Your task to perform on an android device: Open calendar and show me the fourth week of next month Image 0: 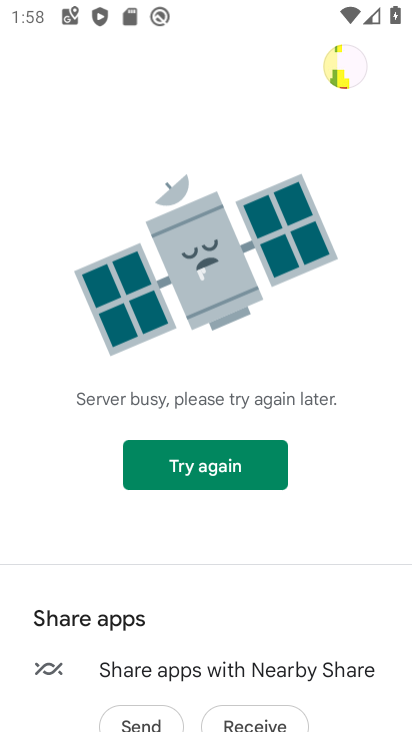
Step 0: press home button
Your task to perform on an android device: Open calendar and show me the fourth week of next month Image 1: 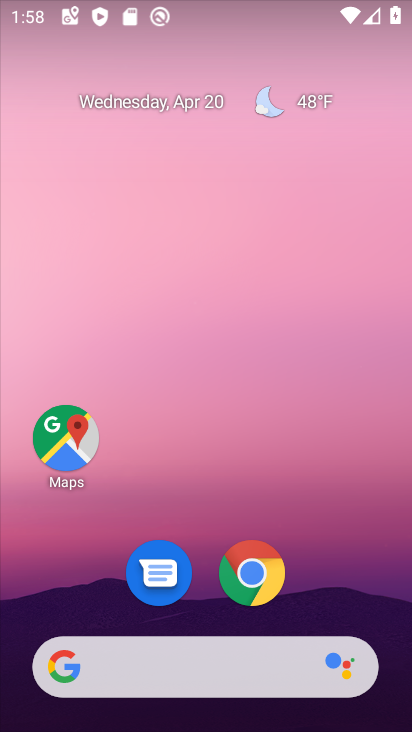
Step 1: drag from (236, 597) to (347, 66)
Your task to perform on an android device: Open calendar and show me the fourth week of next month Image 2: 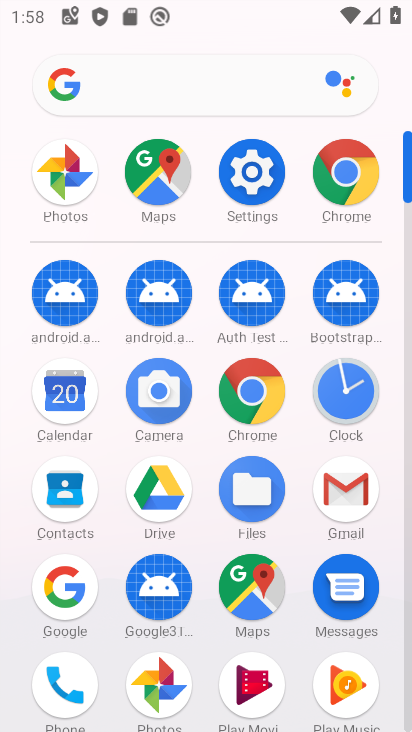
Step 2: click (80, 391)
Your task to perform on an android device: Open calendar and show me the fourth week of next month Image 3: 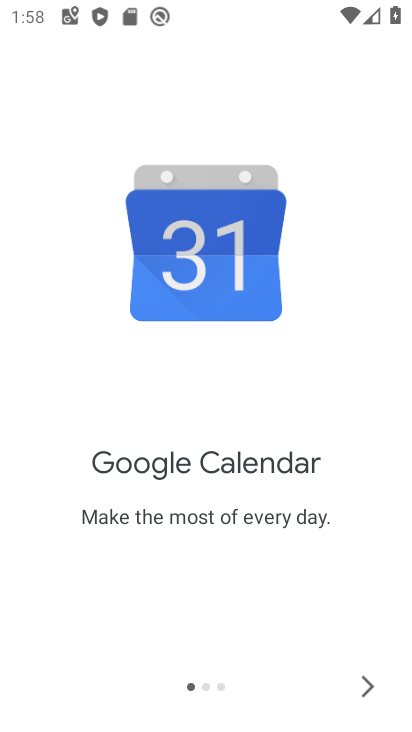
Step 3: click (367, 682)
Your task to perform on an android device: Open calendar and show me the fourth week of next month Image 4: 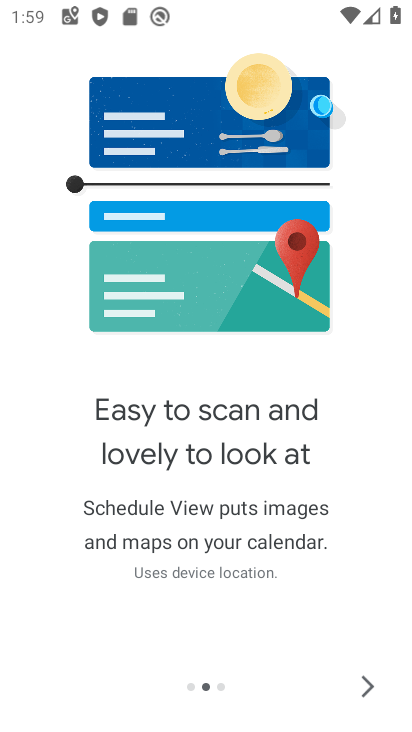
Step 4: click (367, 682)
Your task to perform on an android device: Open calendar and show me the fourth week of next month Image 5: 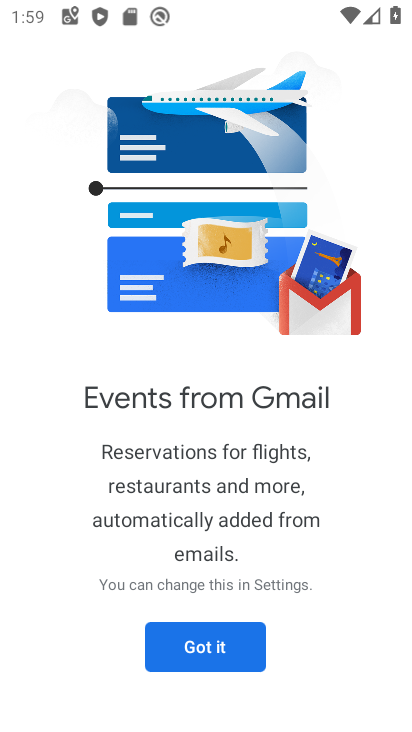
Step 5: click (217, 645)
Your task to perform on an android device: Open calendar and show me the fourth week of next month Image 6: 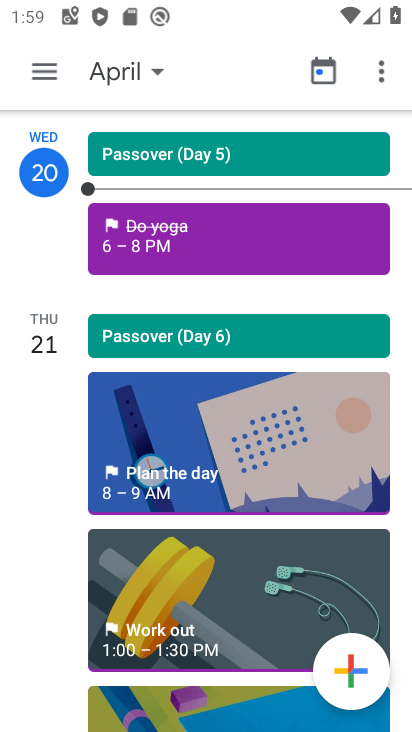
Step 6: click (116, 73)
Your task to perform on an android device: Open calendar and show me the fourth week of next month Image 7: 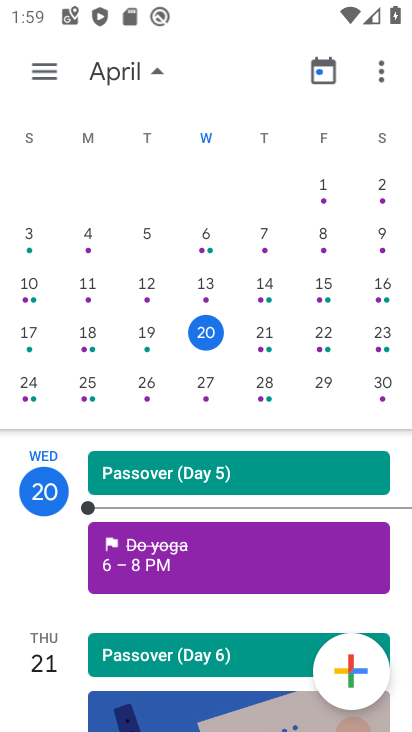
Step 7: drag from (380, 331) to (39, 353)
Your task to perform on an android device: Open calendar and show me the fourth week of next month Image 8: 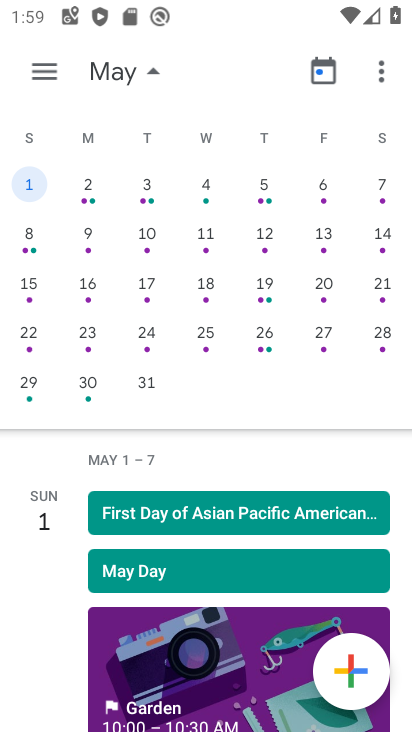
Step 8: click (29, 335)
Your task to perform on an android device: Open calendar and show me the fourth week of next month Image 9: 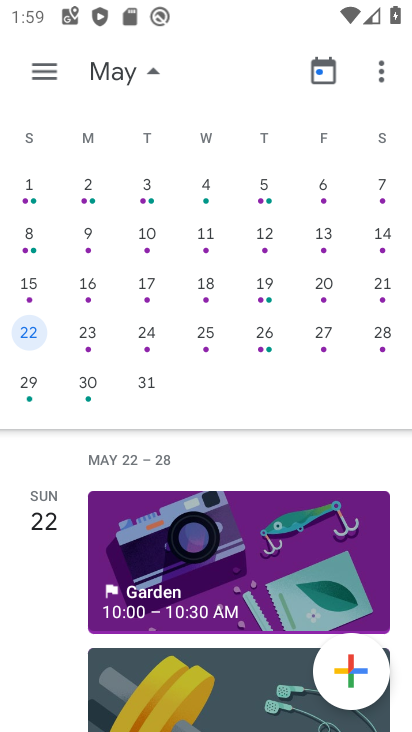
Step 9: click (47, 76)
Your task to perform on an android device: Open calendar and show me the fourth week of next month Image 10: 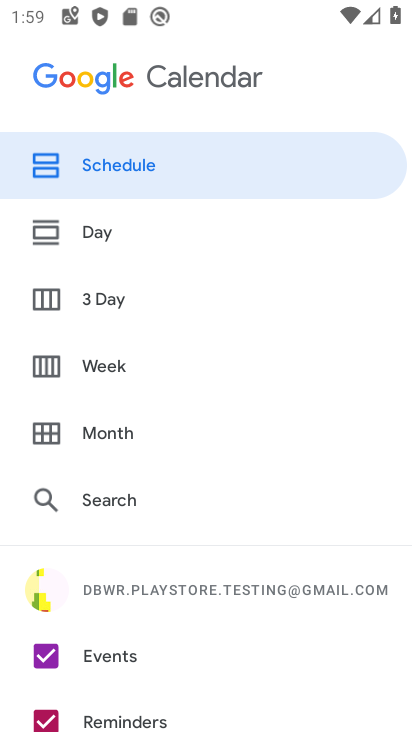
Step 10: click (106, 358)
Your task to perform on an android device: Open calendar and show me the fourth week of next month Image 11: 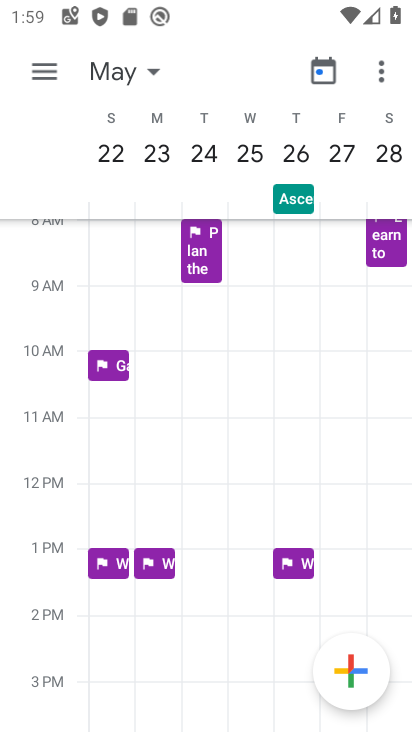
Step 11: task complete